Your task to perform on an android device: open device folders in google photos Image 0: 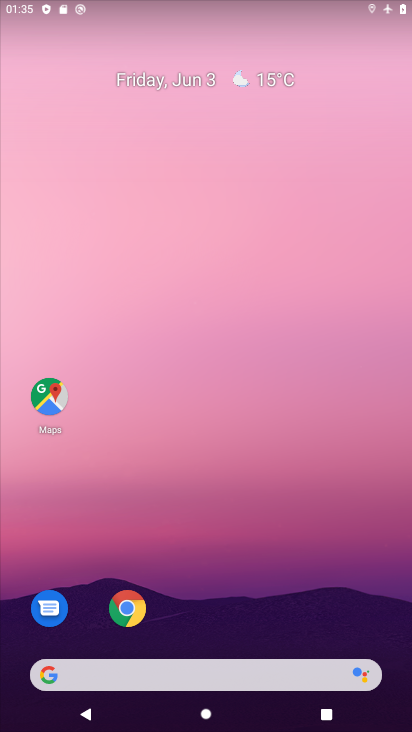
Step 0: drag from (268, 553) to (219, 200)
Your task to perform on an android device: open device folders in google photos Image 1: 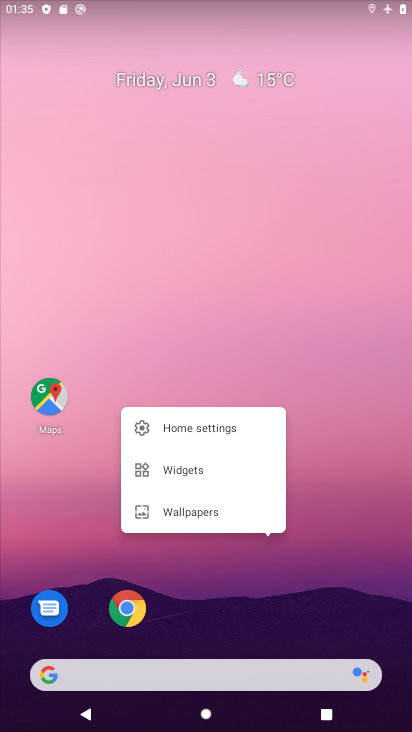
Step 1: click (316, 584)
Your task to perform on an android device: open device folders in google photos Image 2: 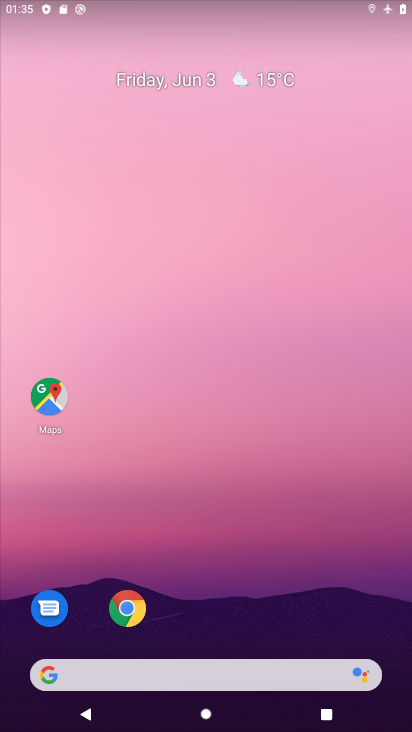
Step 2: drag from (302, 588) to (261, 215)
Your task to perform on an android device: open device folders in google photos Image 3: 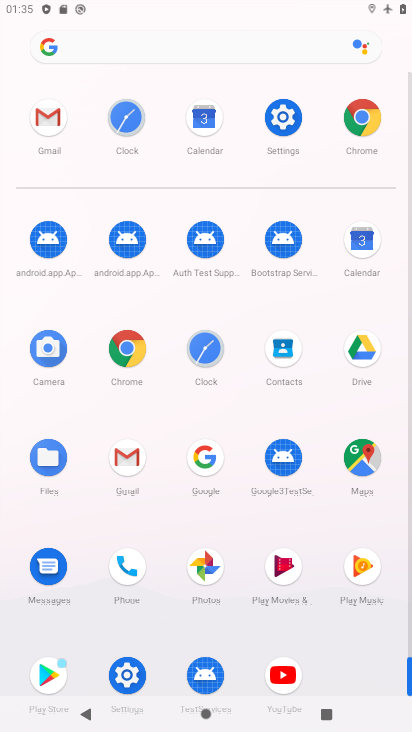
Step 3: click (205, 560)
Your task to perform on an android device: open device folders in google photos Image 4: 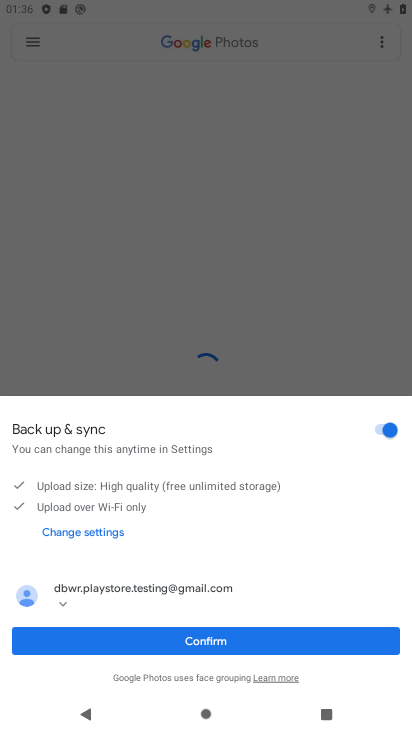
Step 4: click (219, 639)
Your task to perform on an android device: open device folders in google photos Image 5: 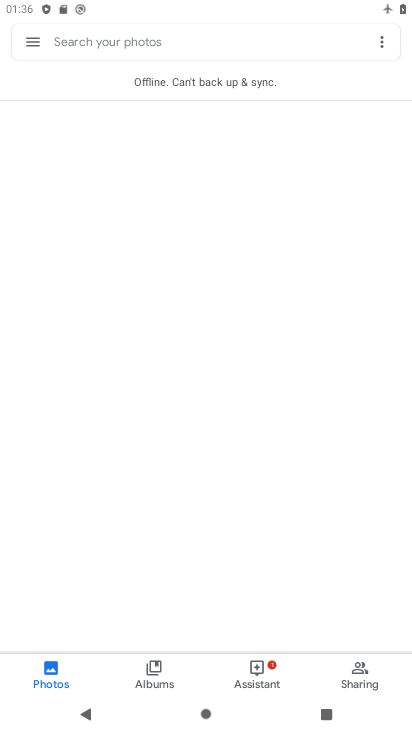
Step 5: click (39, 37)
Your task to perform on an android device: open device folders in google photos Image 6: 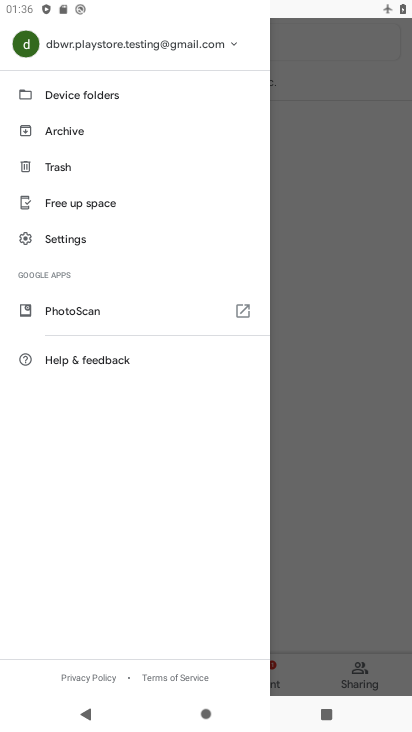
Step 6: click (79, 91)
Your task to perform on an android device: open device folders in google photos Image 7: 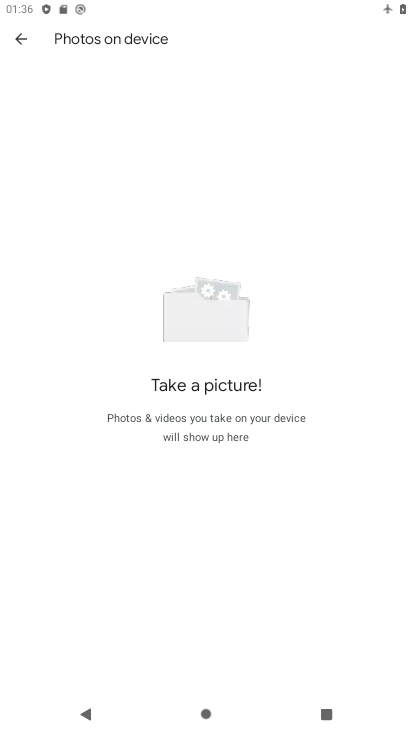
Step 7: task complete